Your task to perform on an android device: change the clock display to show seconds Image 0: 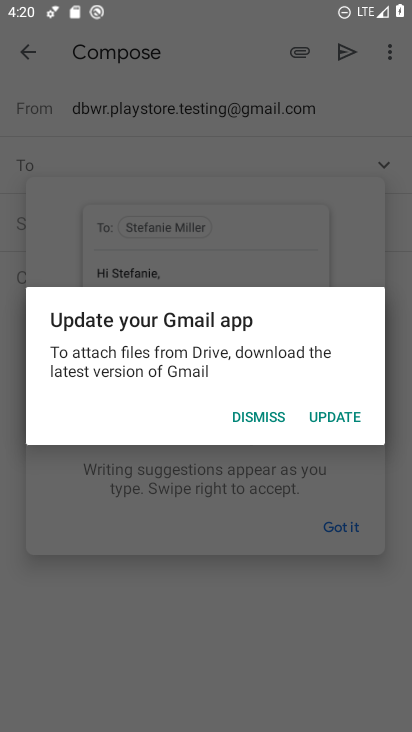
Step 0: press home button
Your task to perform on an android device: change the clock display to show seconds Image 1: 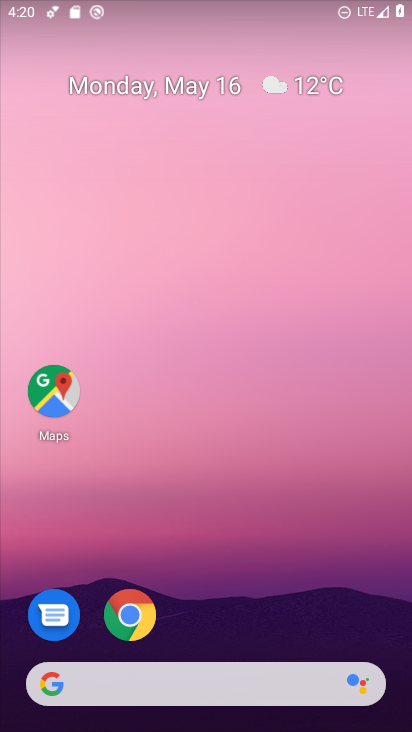
Step 1: drag from (201, 724) to (200, 111)
Your task to perform on an android device: change the clock display to show seconds Image 2: 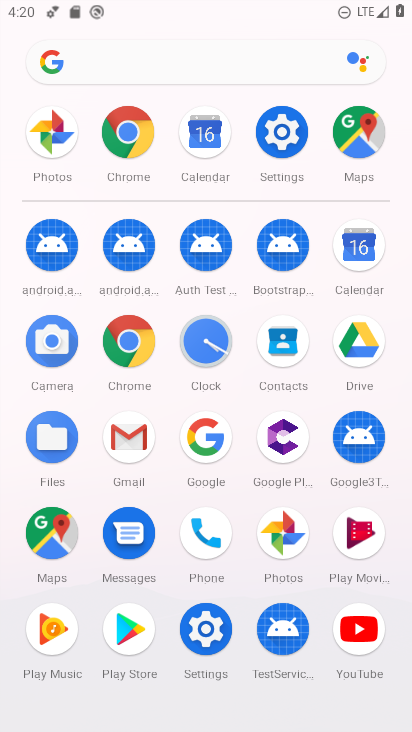
Step 2: click (209, 336)
Your task to perform on an android device: change the clock display to show seconds Image 3: 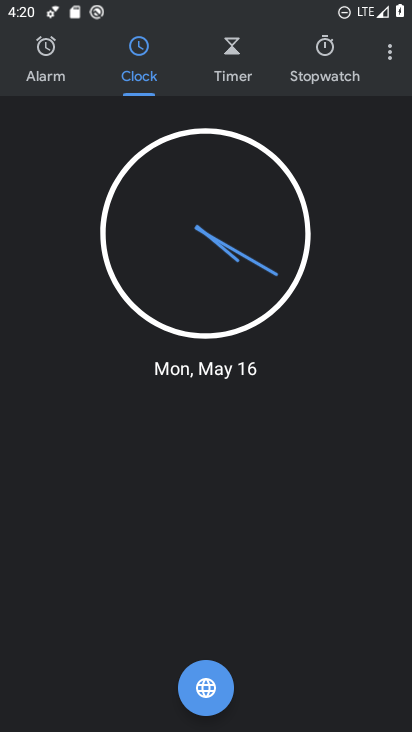
Step 3: click (393, 52)
Your task to perform on an android device: change the clock display to show seconds Image 4: 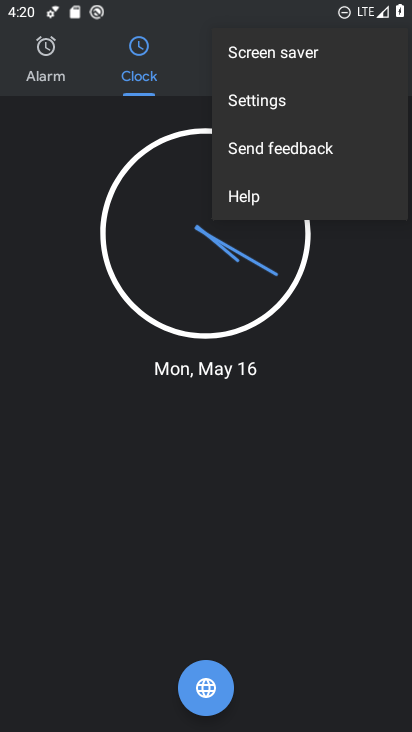
Step 4: click (258, 101)
Your task to perform on an android device: change the clock display to show seconds Image 5: 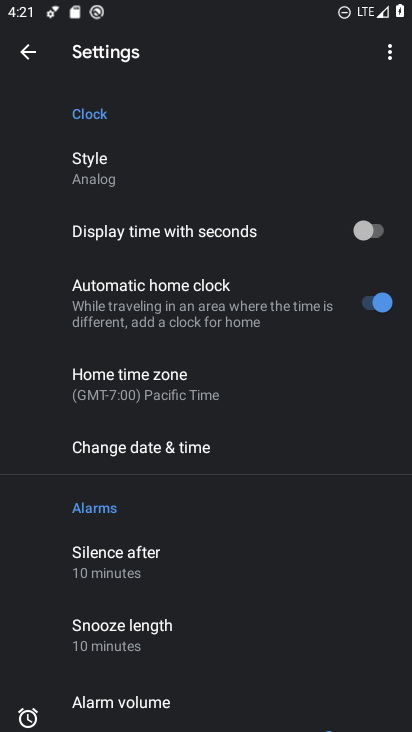
Step 5: click (372, 233)
Your task to perform on an android device: change the clock display to show seconds Image 6: 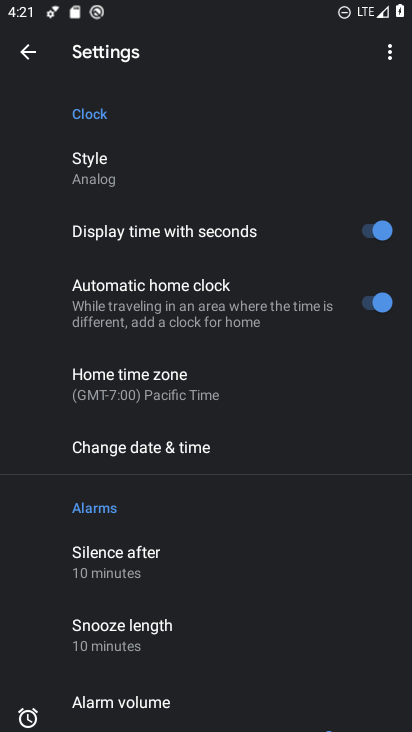
Step 6: task complete